Your task to perform on an android device: empty trash in google photos Image 0: 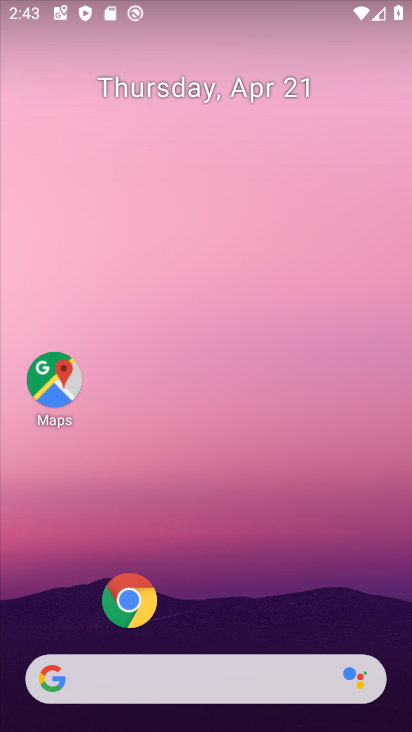
Step 0: drag from (24, 598) to (225, 179)
Your task to perform on an android device: empty trash in google photos Image 1: 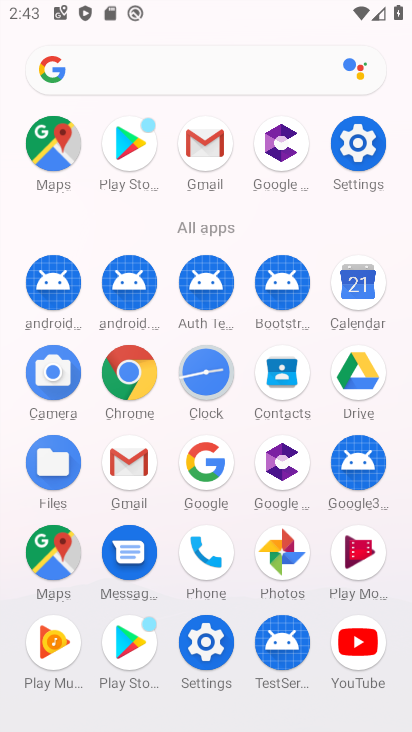
Step 1: click (280, 542)
Your task to perform on an android device: empty trash in google photos Image 2: 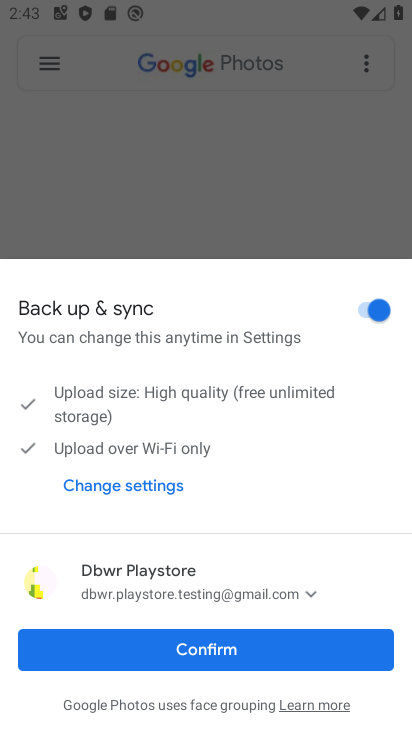
Step 2: click (218, 629)
Your task to perform on an android device: empty trash in google photos Image 3: 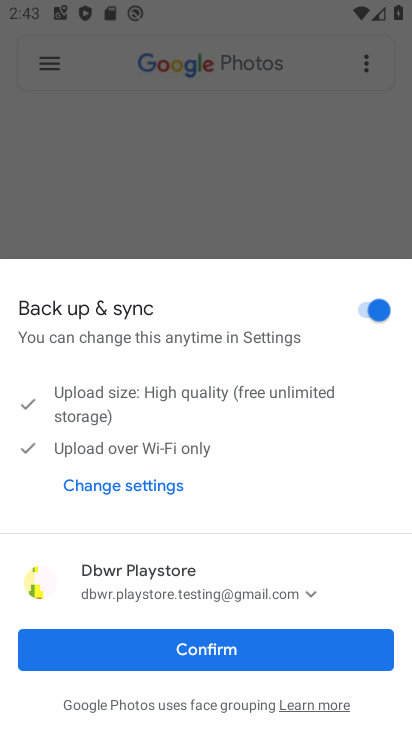
Step 3: click (198, 647)
Your task to perform on an android device: empty trash in google photos Image 4: 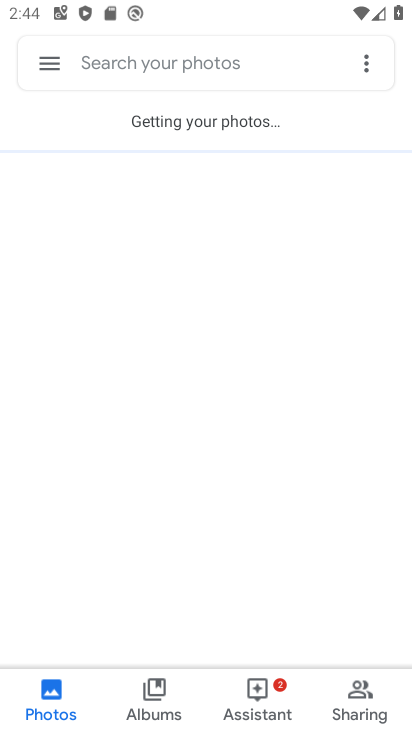
Step 4: click (51, 69)
Your task to perform on an android device: empty trash in google photos Image 5: 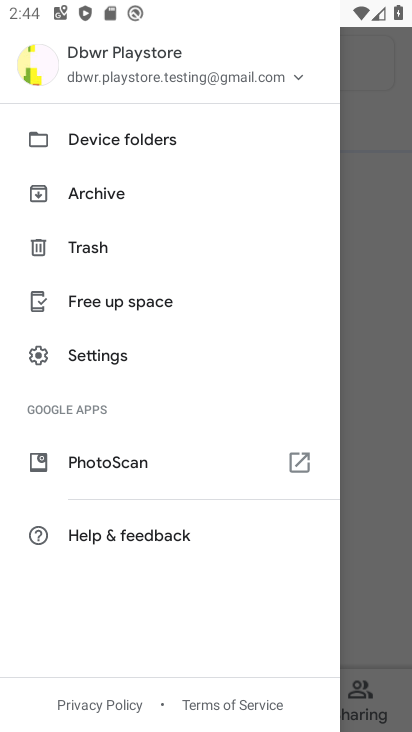
Step 5: click (122, 243)
Your task to perform on an android device: empty trash in google photos Image 6: 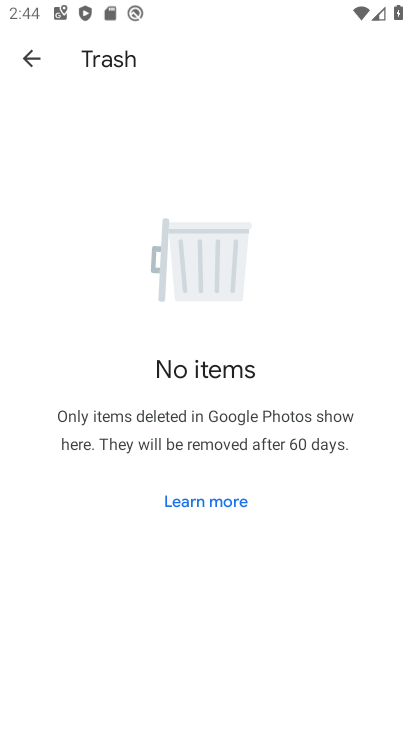
Step 6: task complete